Your task to perform on an android device: Open accessibility settings Image 0: 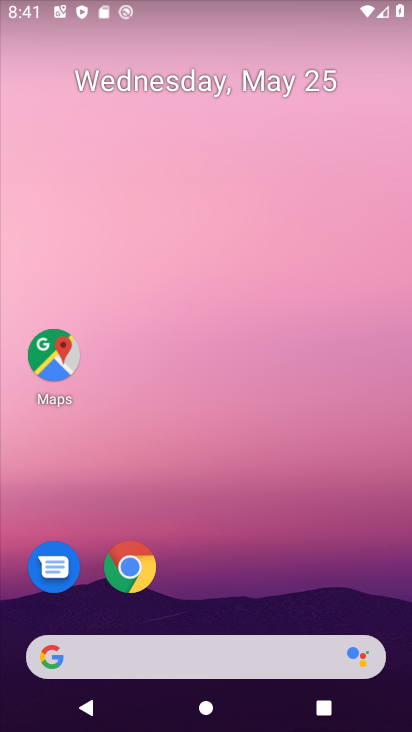
Step 0: drag from (362, 574) to (277, 92)
Your task to perform on an android device: Open accessibility settings Image 1: 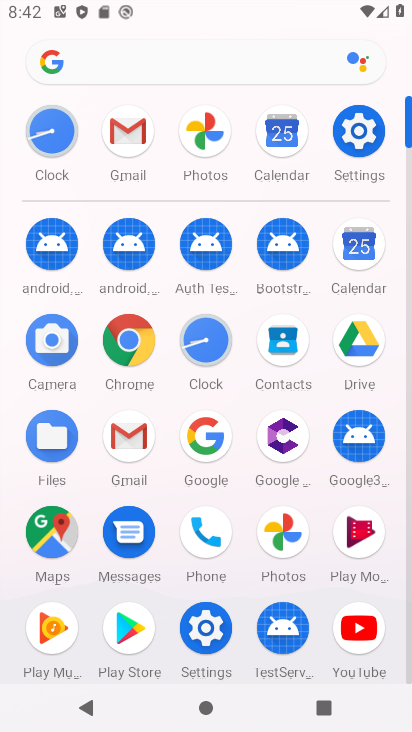
Step 1: click (331, 162)
Your task to perform on an android device: Open accessibility settings Image 2: 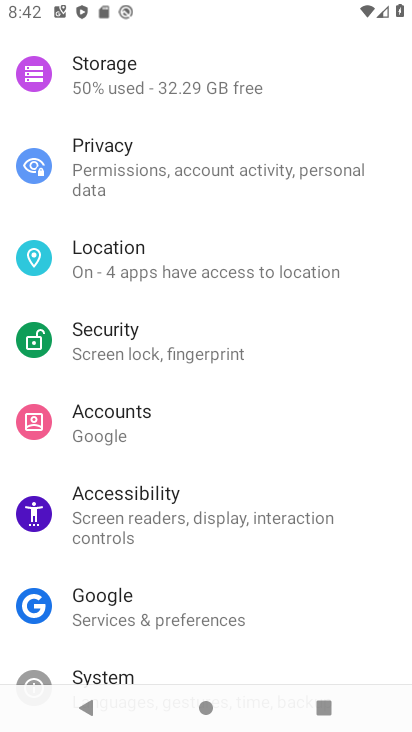
Step 2: click (228, 491)
Your task to perform on an android device: Open accessibility settings Image 3: 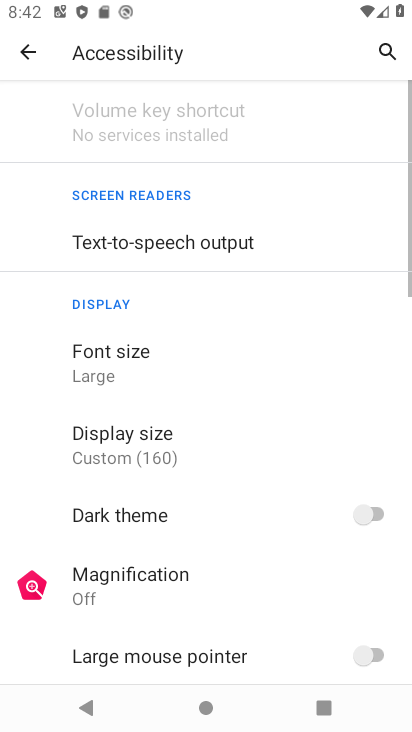
Step 3: task complete